Your task to perform on an android device: check google app version Image 0: 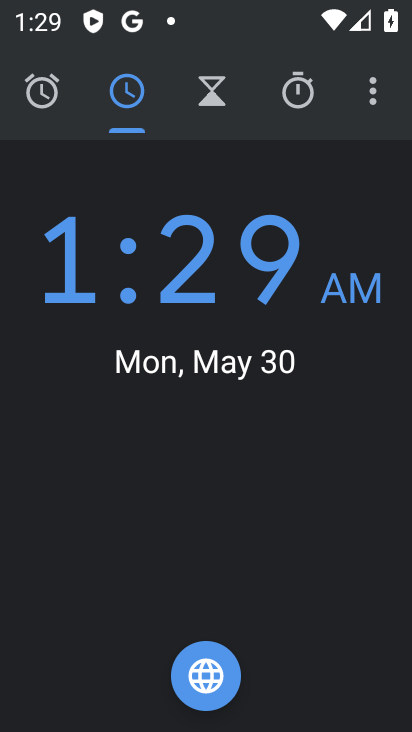
Step 0: press home button
Your task to perform on an android device: check google app version Image 1: 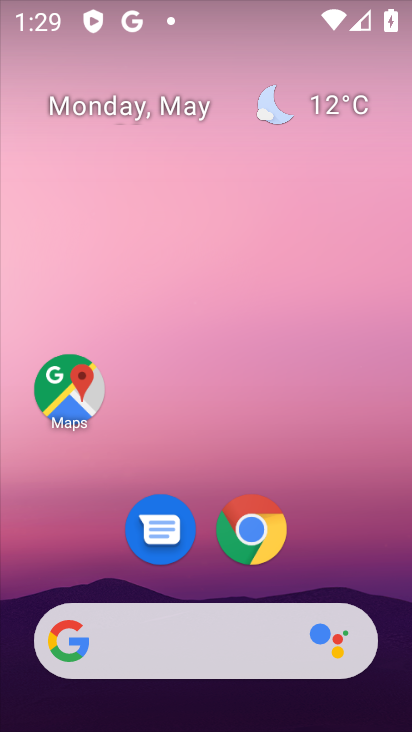
Step 1: drag from (378, 616) to (318, 152)
Your task to perform on an android device: check google app version Image 2: 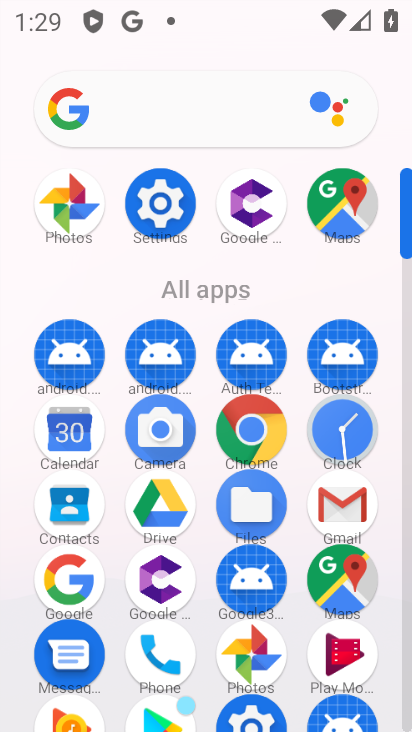
Step 2: click (250, 431)
Your task to perform on an android device: check google app version Image 3: 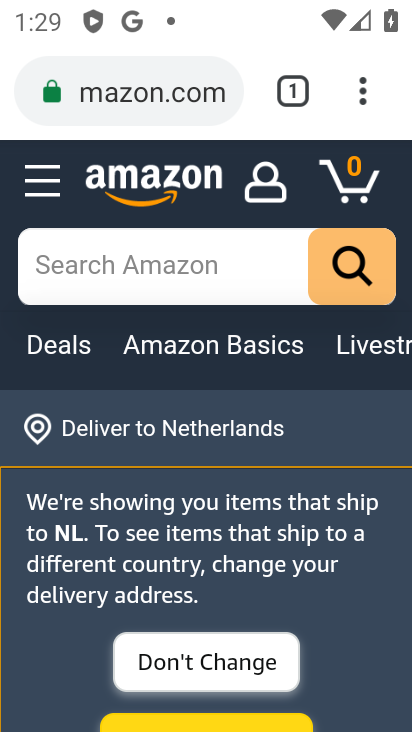
Step 3: click (361, 99)
Your task to perform on an android device: check google app version Image 4: 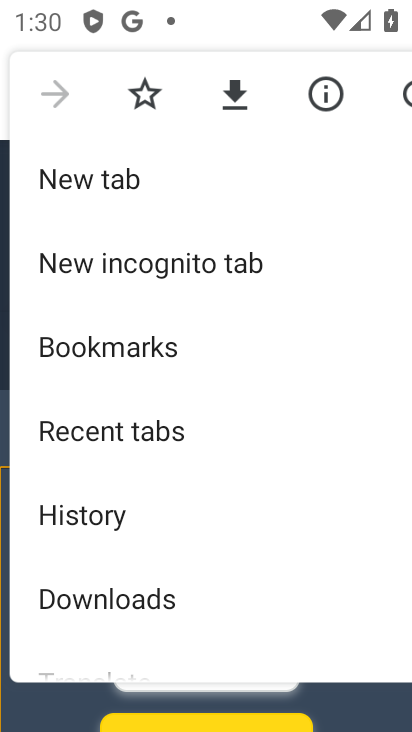
Step 4: drag from (213, 586) to (207, 122)
Your task to perform on an android device: check google app version Image 5: 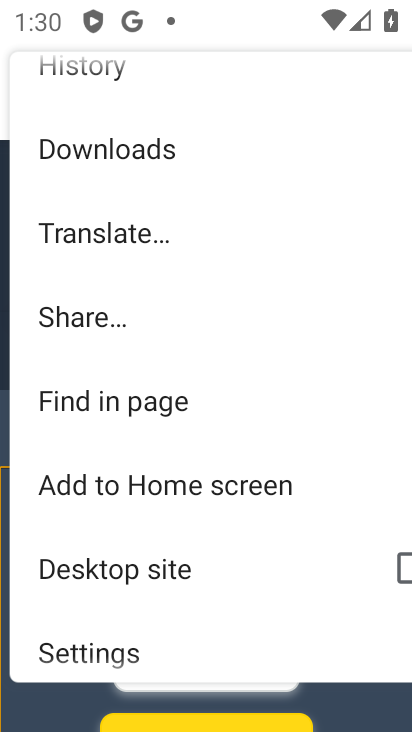
Step 5: drag from (216, 630) to (239, 217)
Your task to perform on an android device: check google app version Image 6: 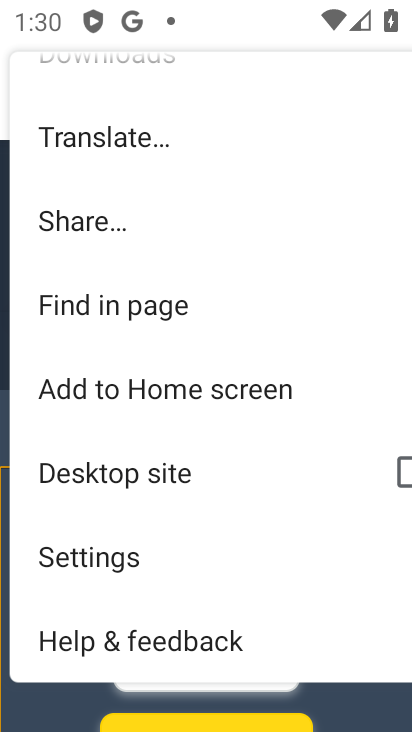
Step 6: click (99, 555)
Your task to perform on an android device: check google app version Image 7: 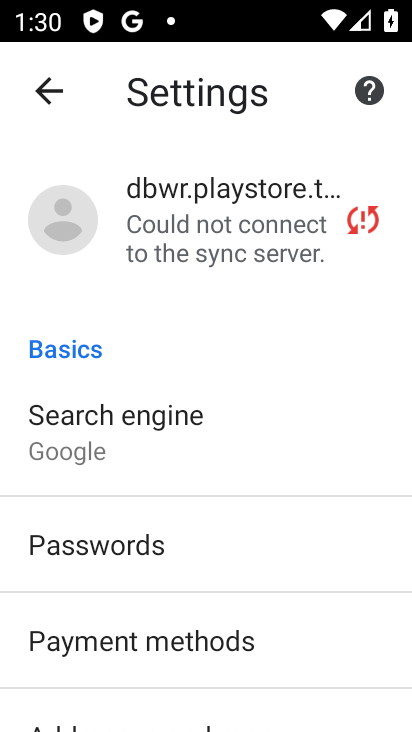
Step 7: drag from (266, 665) to (225, 223)
Your task to perform on an android device: check google app version Image 8: 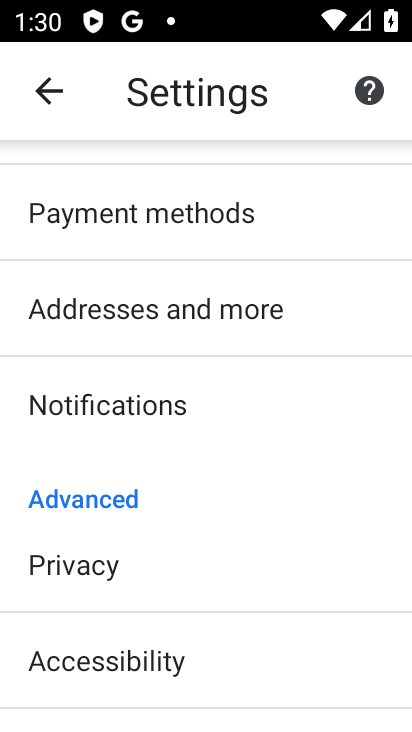
Step 8: drag from (242, 671) to (300, 194)
Your task to perform on an android device: check google app version Image 9: 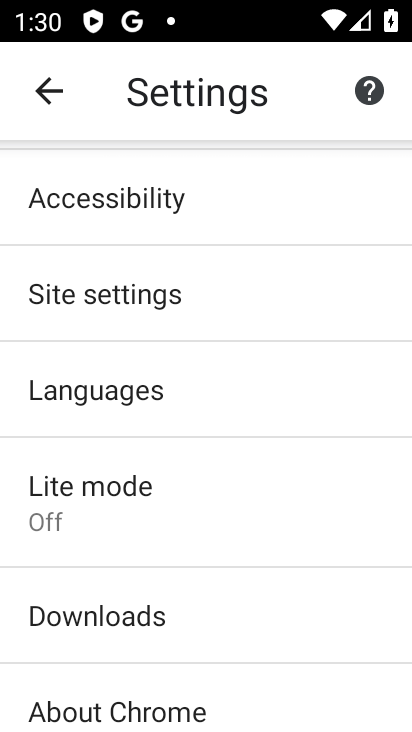
Step 9: drag from (185, 666) to (178, 270)
Your task to perform on an android device: check google app version Image 10: 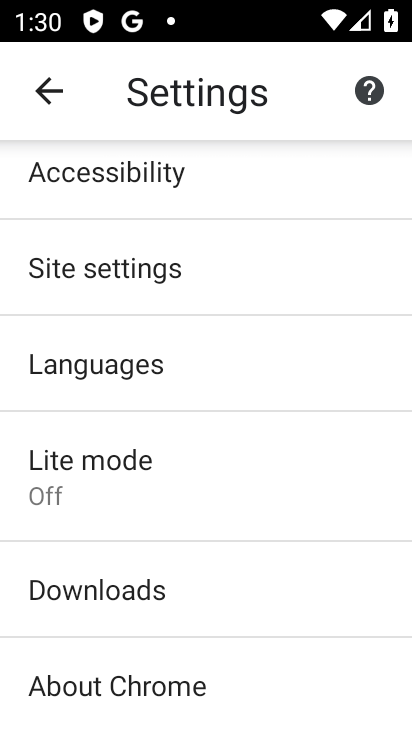
Step 10: click (72, 695)
Your task to perform on an android device: check google app version Image 11: 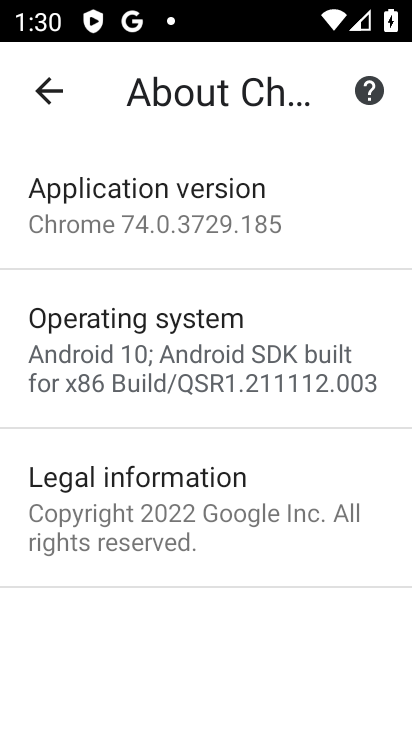
Step 11: click (152, 185)
Your task to perform on an android device: check google app version Image 12: 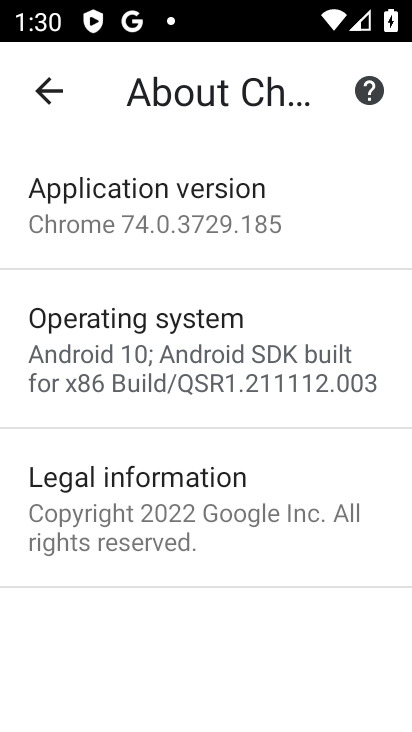
Step 12: task complete